Your task to perform on an android device: add a contact Image 0: 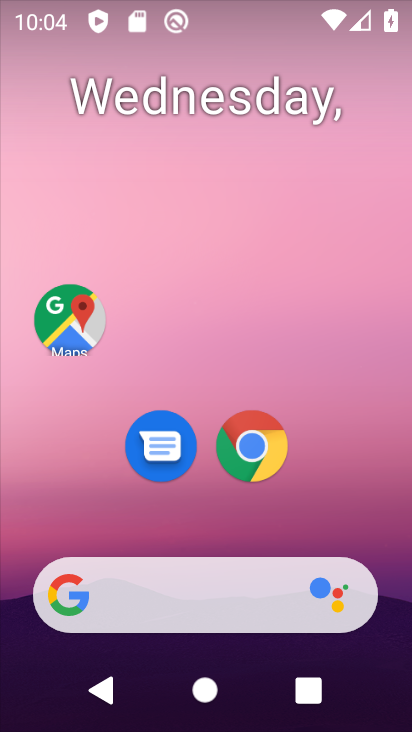
Step 0: drag from (305, 456) to (317, 132)
Your task to perform on an android device: add a contact Image 1: 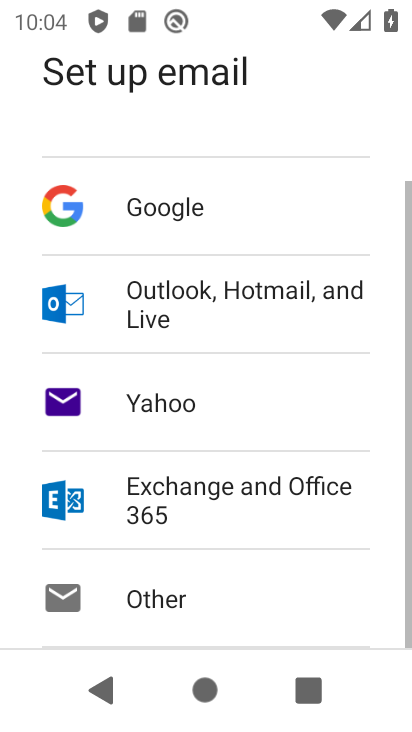
Step 1: press home button
Your task to perform on an android device: add a contact Image 2: 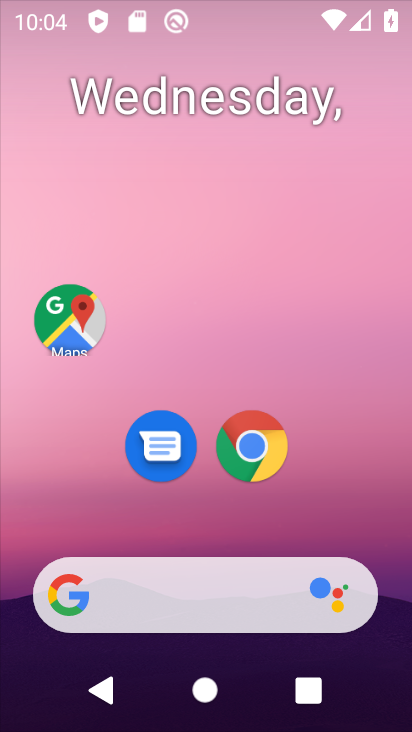
Step 2: drag from (309, 533) to (353, 165)
Your task to perform on an android device: add a contact Image 3: 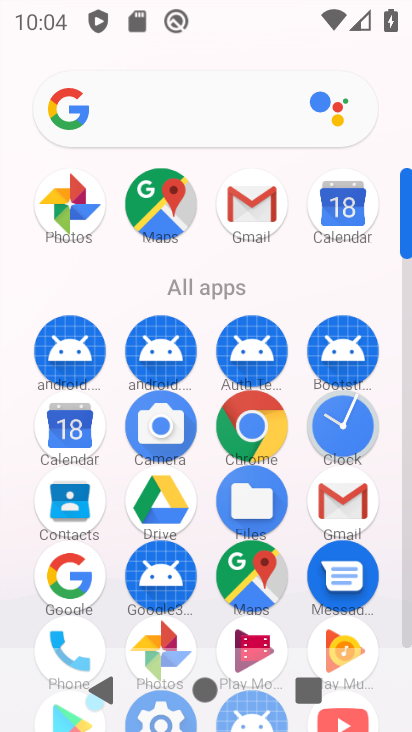
Step 3: click (79, 503)
Your task to perform on an android device: add a contact Image 4: 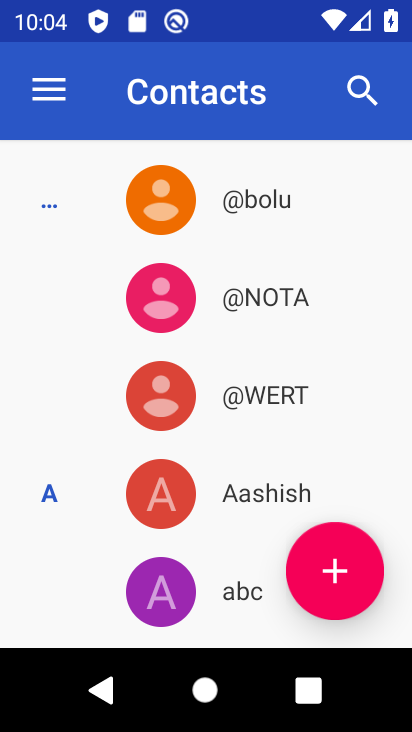
Step 4: click (353, 575)
Your task to perform on an android device: add a contact Image 5: 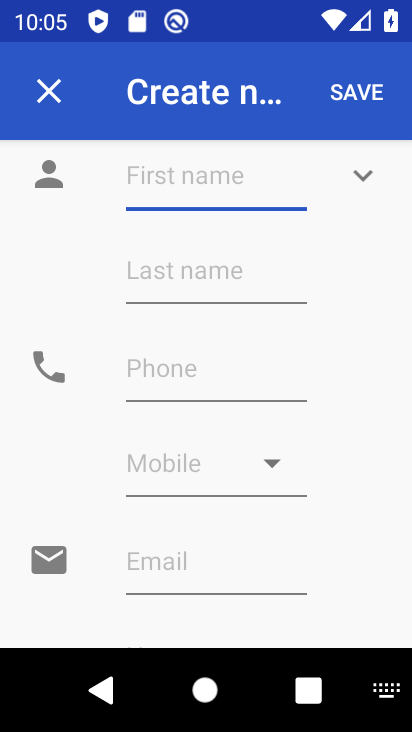
Step 5: type "tripti"
Your task to perform on an android device: add a contact Image 6: 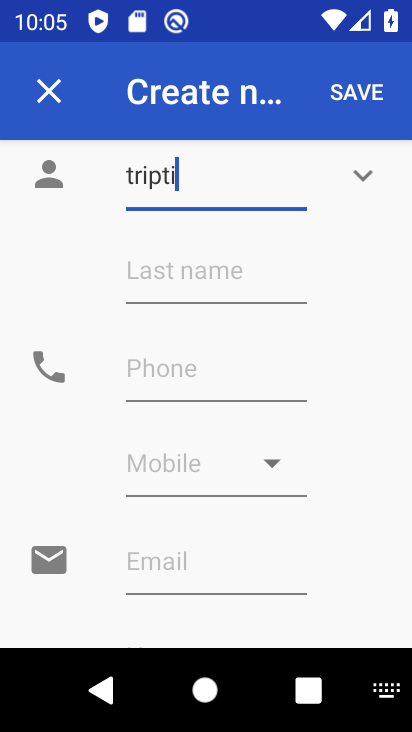
Step 6: click (145, 371)
Your task to perform on an android device: add a contact Image 7: 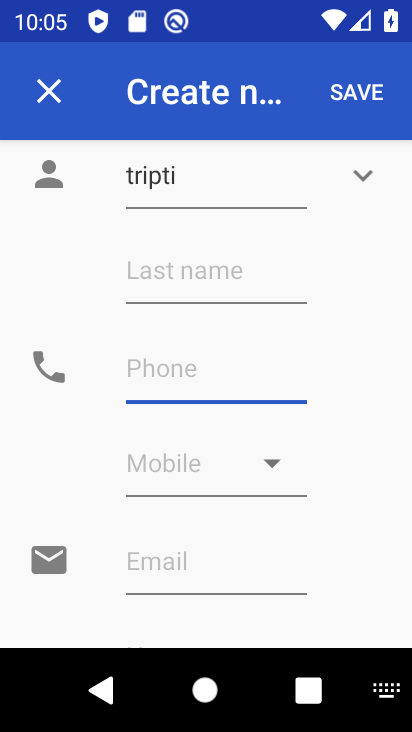
Step 7: type "8788686877"
Your task to perform on an android device: add a contact Image 8: 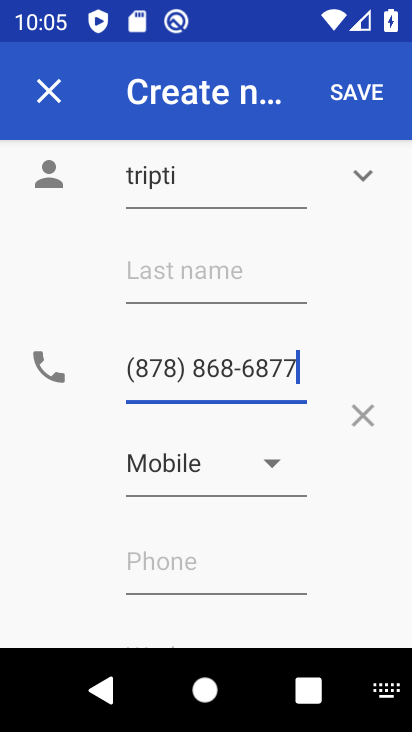
Step 8: click (370, 90)
Your task to perform on an android device: add a contact Image 9: 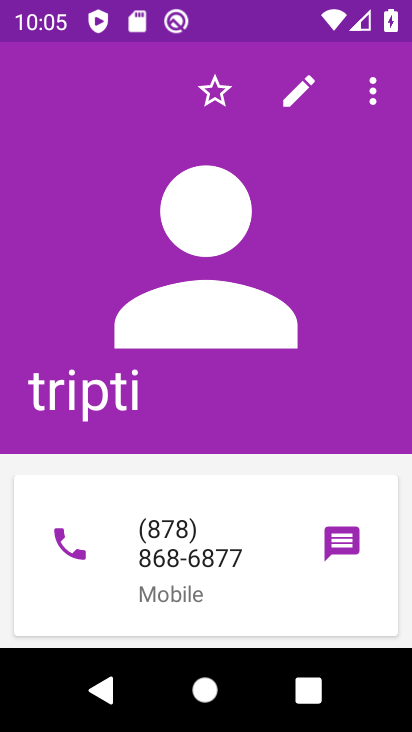
Step 9: task complete